Your task to perform on an android device: What's the weather today? Image 0: 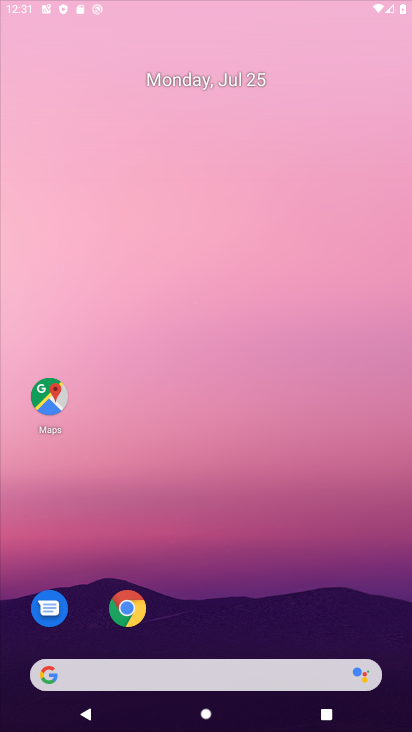
Step 0: drag from (274, 584) to (233, 105)
Your task to perform on an android device: What's the weather today? Image 1: 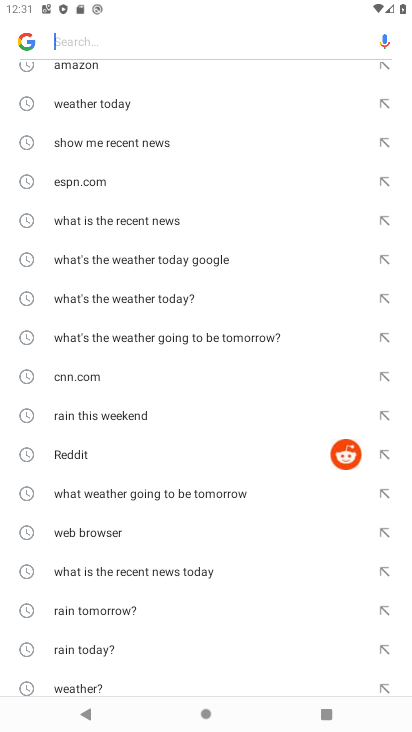
Step 1: press home button
Your task to perform on an android device: What's the weather today? Image 2: 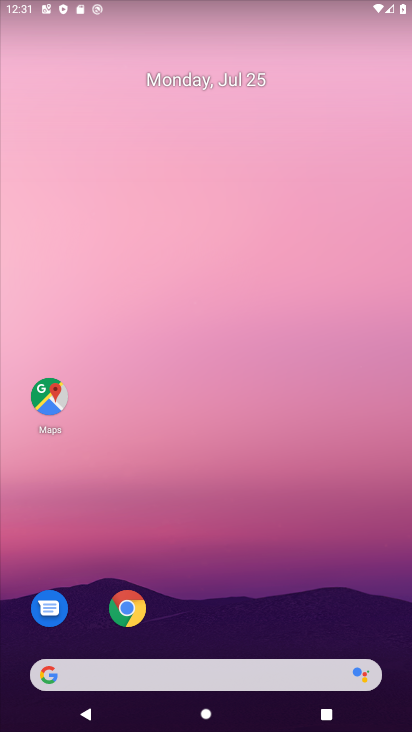
Step 2: drag from (276, 586) to (240, 97)
Your task to perform on an android device: What's the weather today? Image 3: 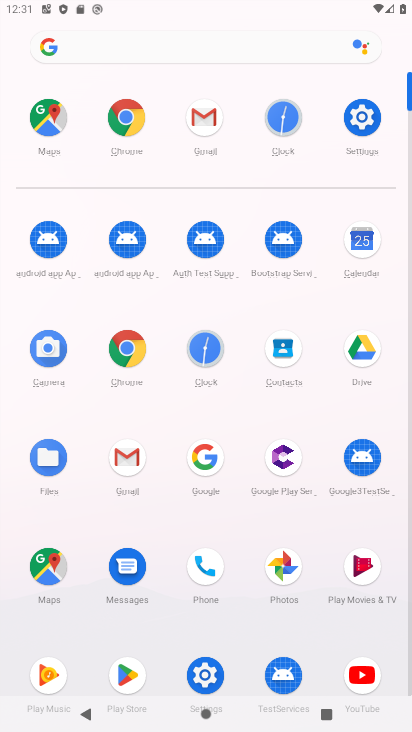
Step 3: click (136, 363)
Your task to perform on an android device: What's the weather today? Image 4: 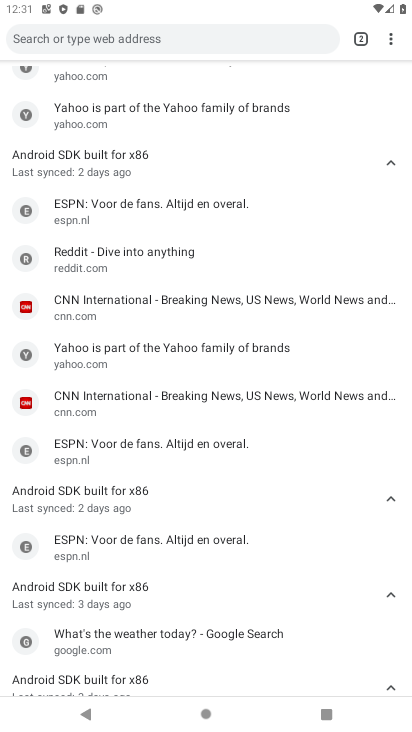
Step 4: click (166, 48)
Your task to perform on an android device: What's the weather today? Image 5: 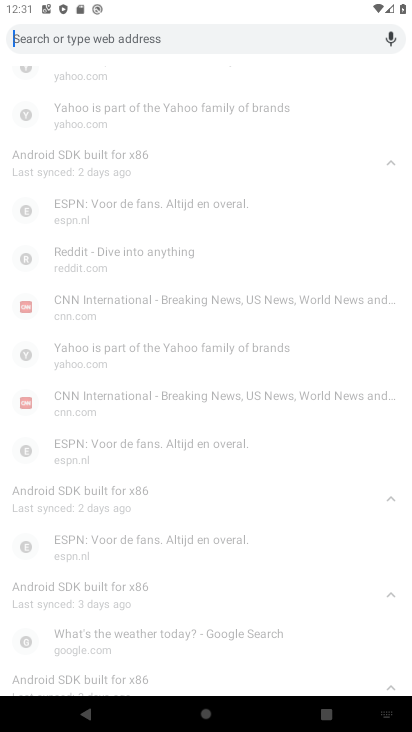
Step 5: type "weather today"
Your task to perform on an android device: What's the weather today? Image 6: 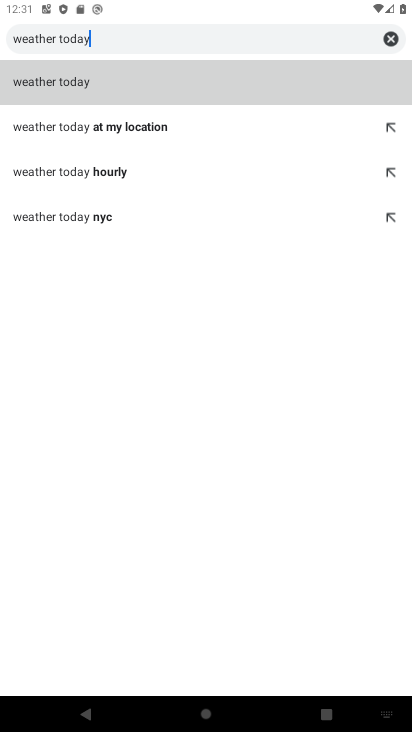
Step 6: type ""
Your task to perform on an android device: What's the weather today? Image 7: 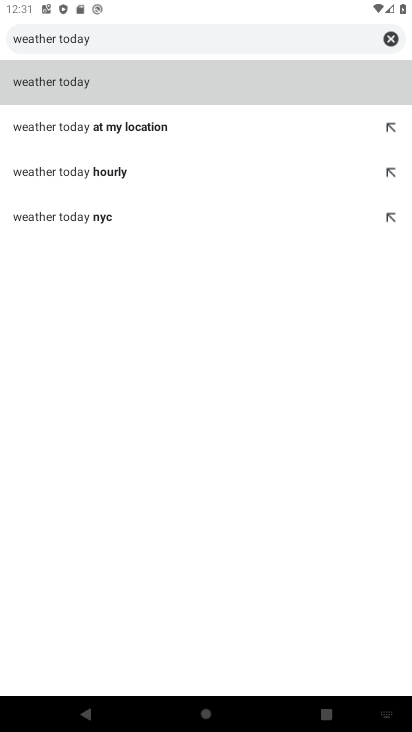
Step 7: click (182, 130)
Your task to perform on an android device: What's the weather today? Image 8: 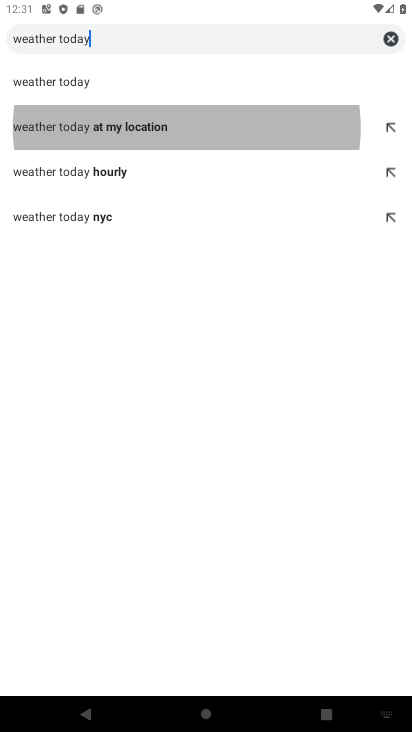
Step 8: click (95, 73)
Your task to perform on an android device: What's the weather today? Image 9: 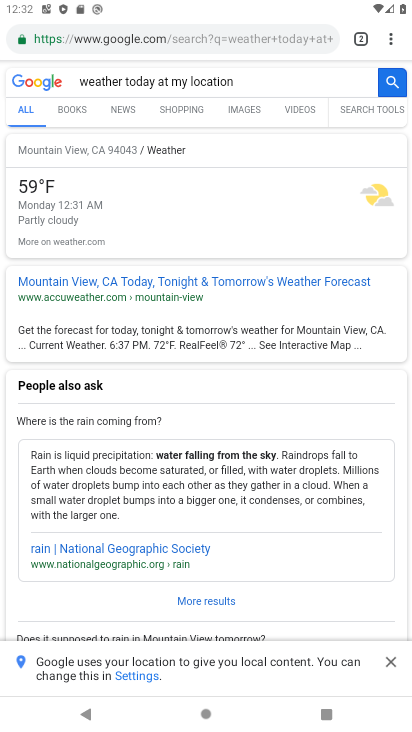
Step 9: task complete